Your task to perform on an android device: turn on wifi Image 0: 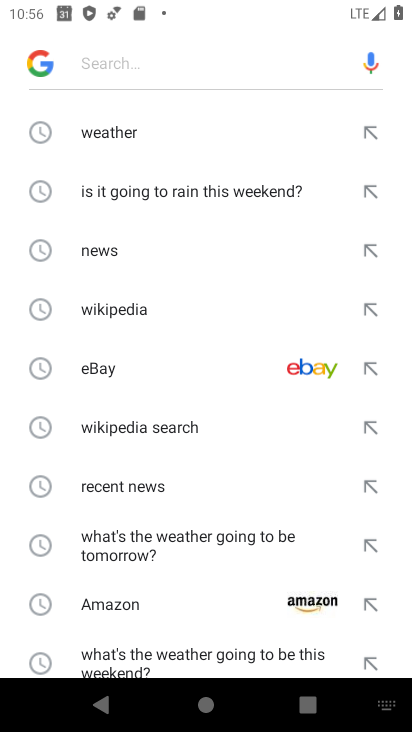
Step 0: press home button
Your task to perform on an android device: turn on wifi Image 1: 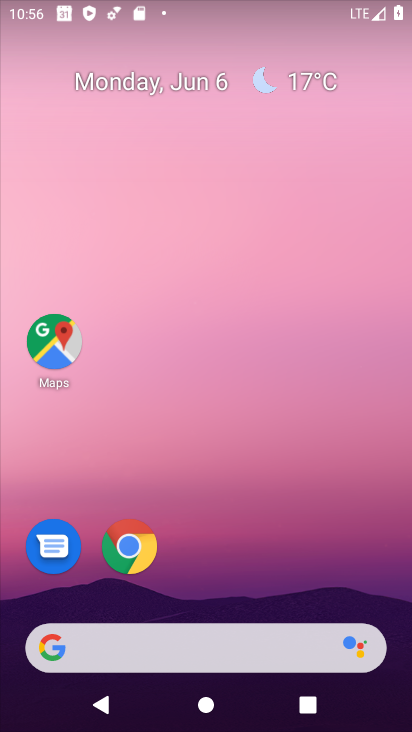
Step 1: drag from (274, 550) to (267, 96)
Your task to perform on an android device: turn on wifi Image 2: 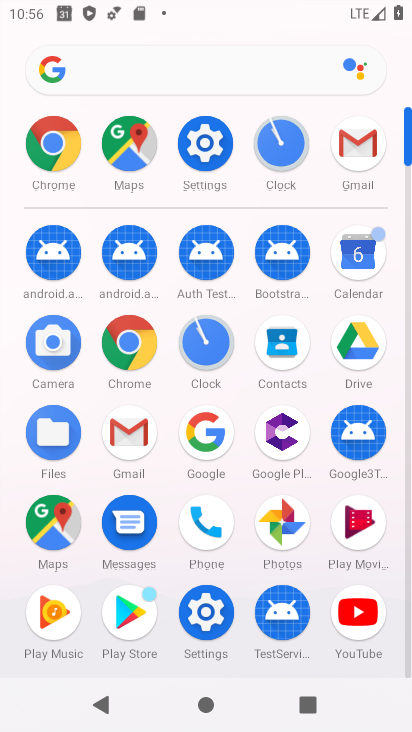
Step 2: click (204, 136)
Your task to perform on an android device: turn on wifi Image 3: 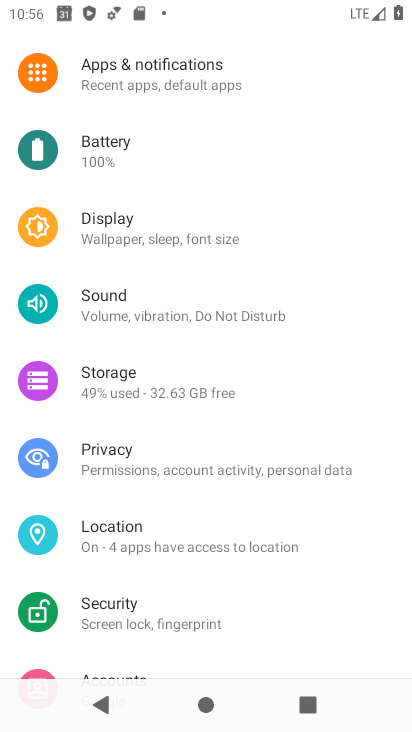
Step 3: drag from (194, 93) to (187, 440)
Your task to perform on an android device: turn on wifi Image 4: 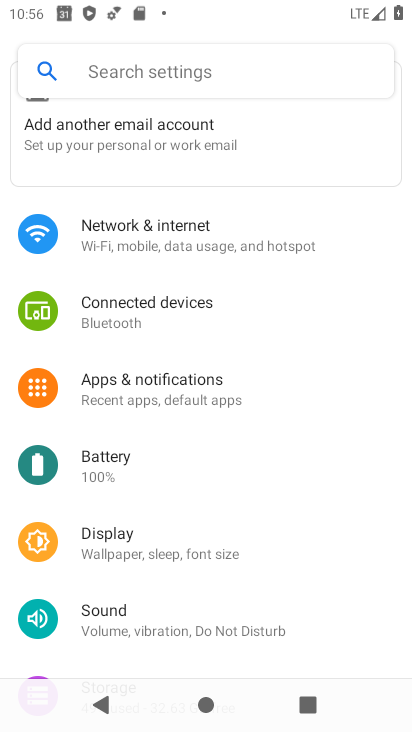
Step 4: click (191, 244)
Your task to perform on an android device: turn on wifi Image 5: 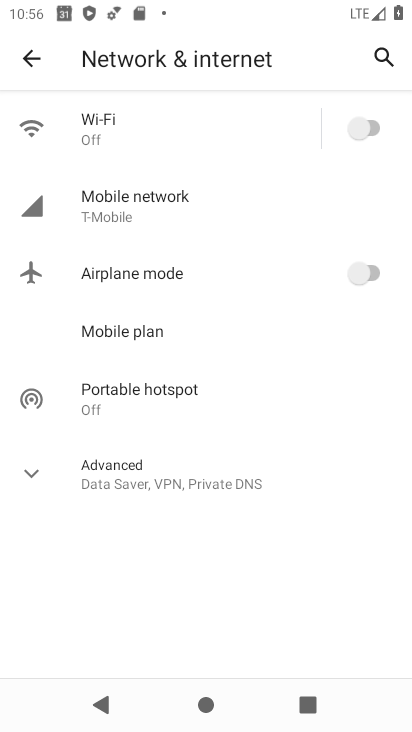
Step 5: click (358, 128)
Your task to perform on an android device: turn on wifi Image 6: 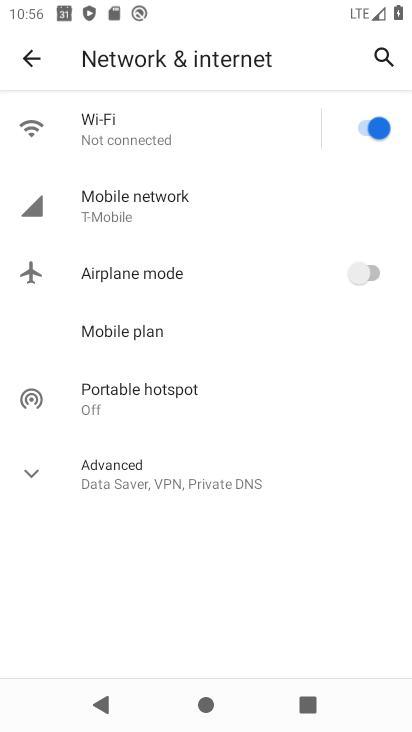
Step 6: task complete